Your task to perform on an android device: Go to Google Image 0: 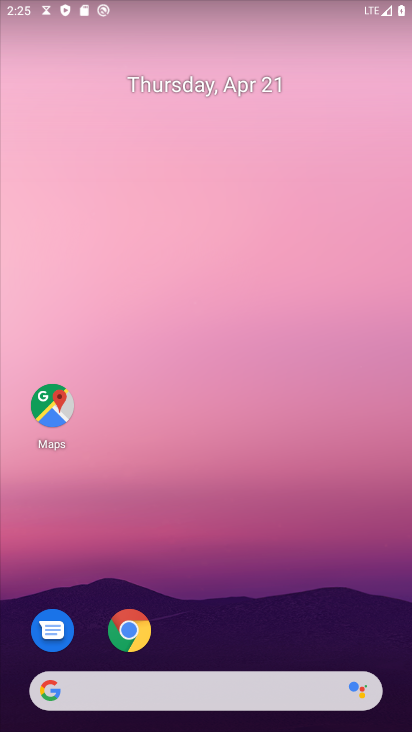
Step 0: drag from (325, 628) to (379, 5)
Your task to perform on an android device: Go to Google Image 1: 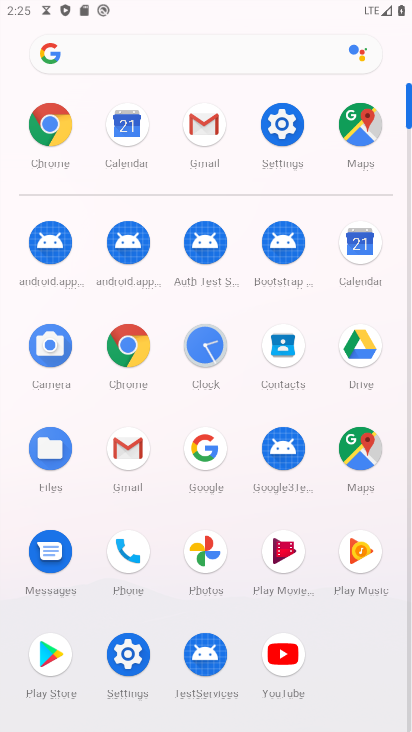
Step 1: click (206, 454)
Your task to perform on an android device: Go to Google Image 2: 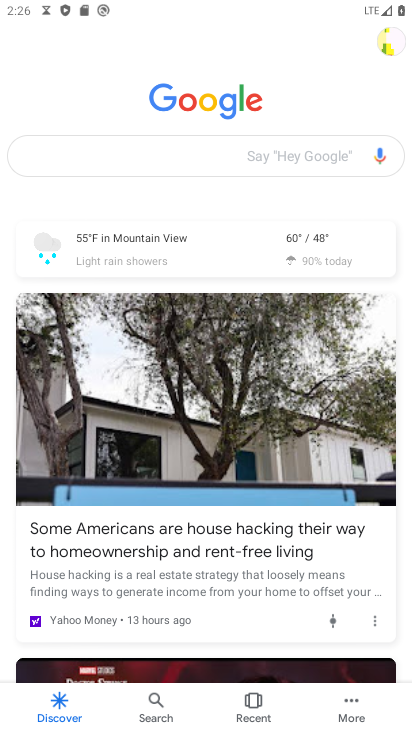
Step 2: task complete